Your task to perform on an android device: open sync settings in chrome Image 0: 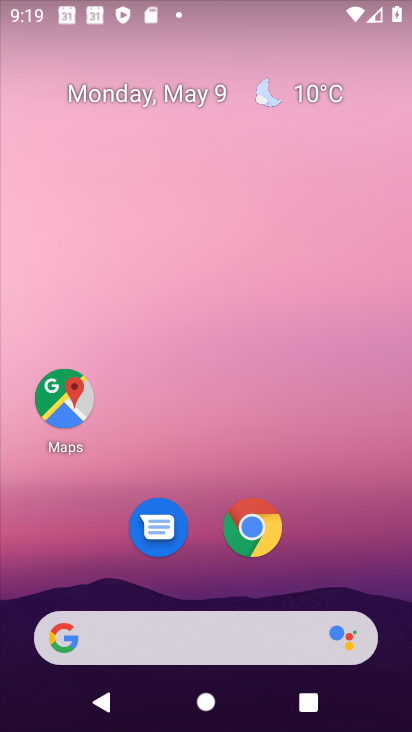
Step 0: drag from (311, 635) to (269, 49)
Your task to perform on an android device: open sync settings in chrome Image 1: 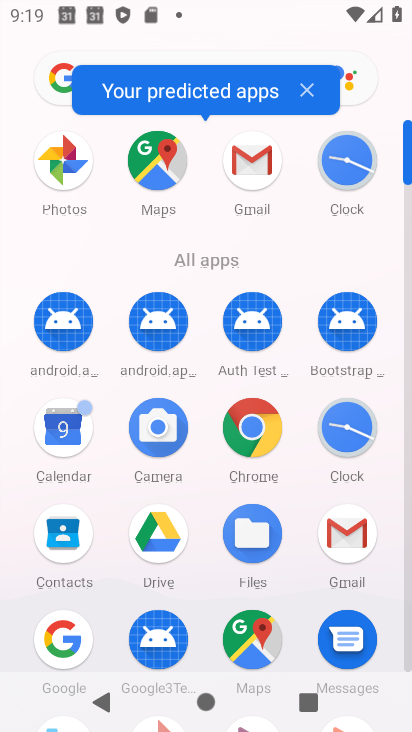
Step 1: click (240, 410)
Your task to perform on an android device: open sync settings in chrome Image 2: 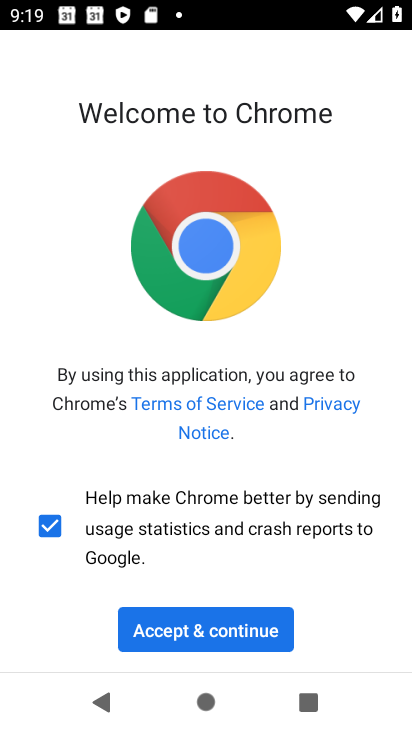
Step 2: click (269, 634)
Your task to perform on an android device: open sync settings in chrome Image 3: 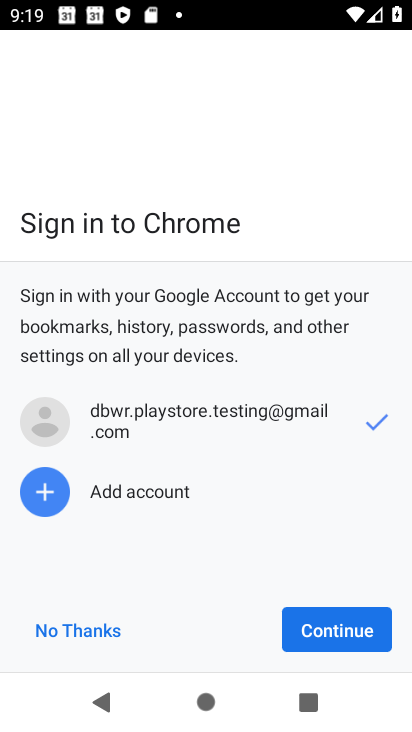
Step 3: click (151, 694)
Your task to perform on an android device: open sync settings in chrome Image 4: 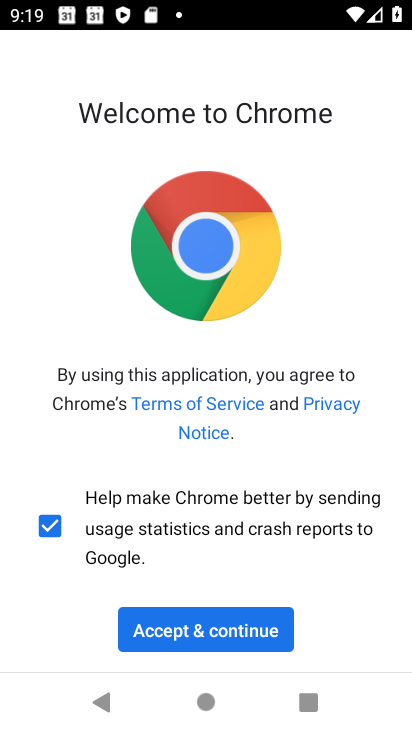
Step 4: click (231, 642)
Your task to perform on an android device: open sync settings in chrome Image 5: 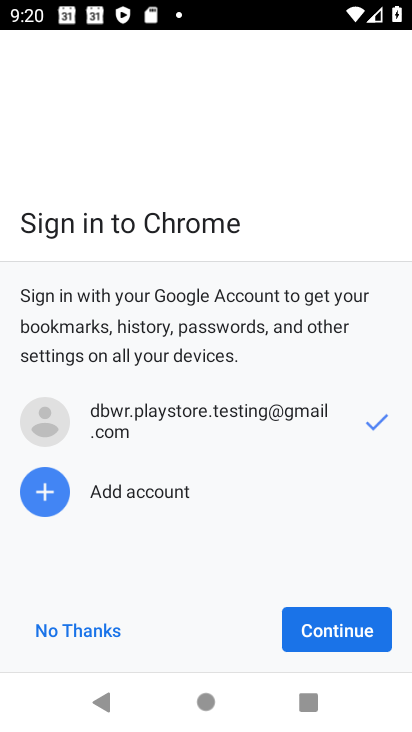
Step 5: click (52, 628)
Your task to perform on an android device: open sync settings in chrome Image 6: 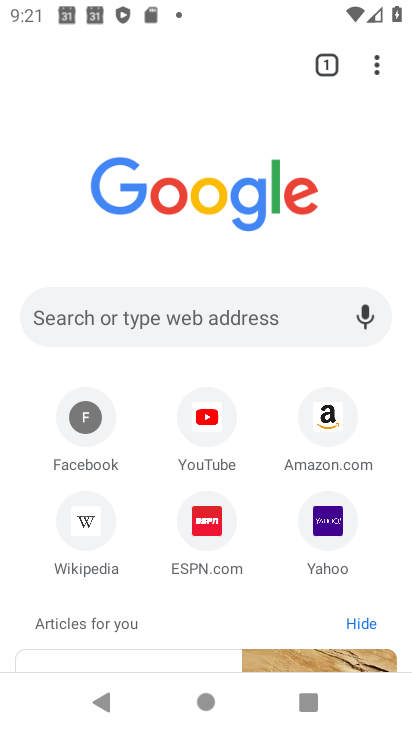
Step 6: drag from (374, 58) to (218, 551)
Your task to perform on an android device: open sync settings in chrome Image 7: 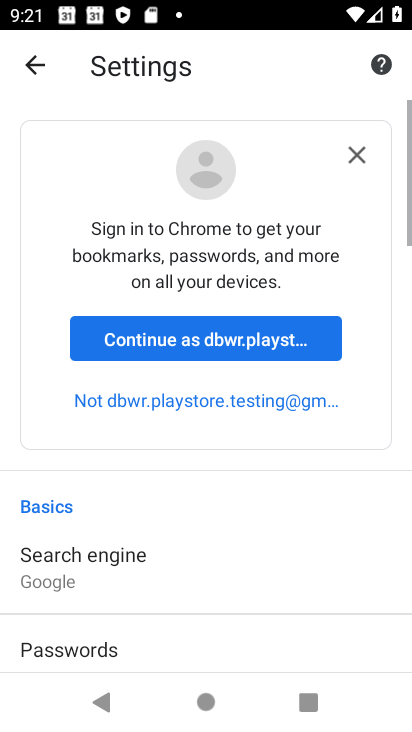
Step 7: drag from (223, 599) to (175, 10)
Your task to perform on an android device: open sync settings in chrome Image 8: 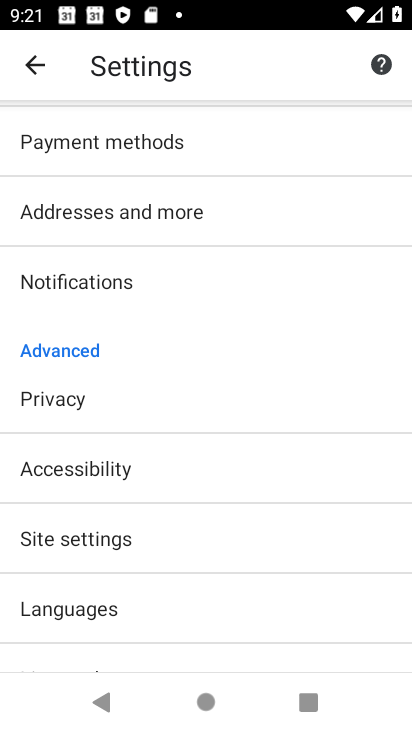
Step 8: click (134, 556)
Your task to perform on an android device: open sync settings in chrome Image 9: 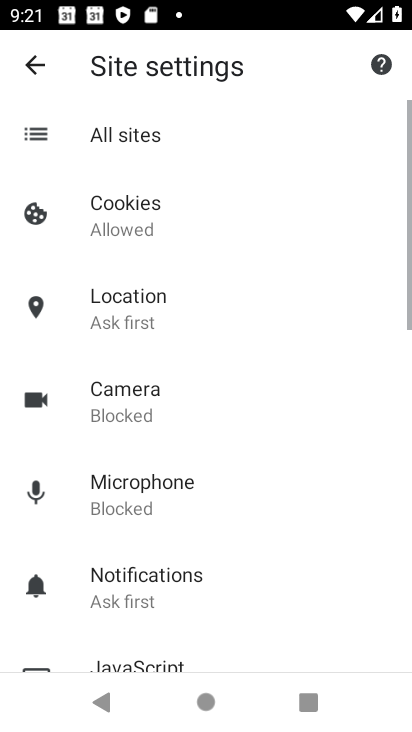
Step 9: drag from (215, 630) to (218, 126)
Your task to perform on an android device: open sync settings in chrome Image 10: 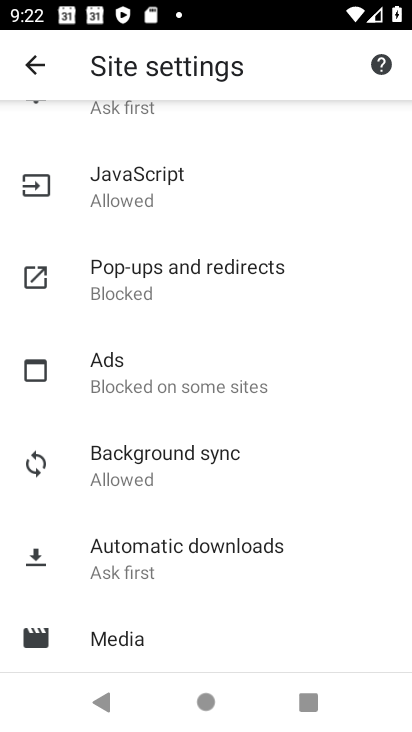
Step 10: click (220, 456)
Your task to perform on an android device: open sync settings in chrome Image 11: 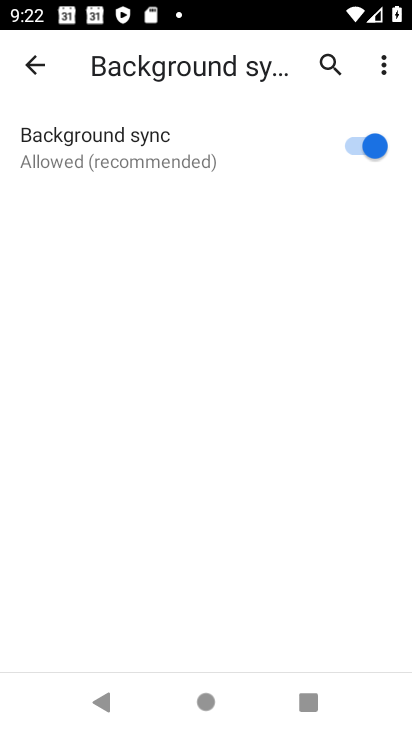
Step 11: task complete